Your task to perform on an android device: Go to display settings Image 0: 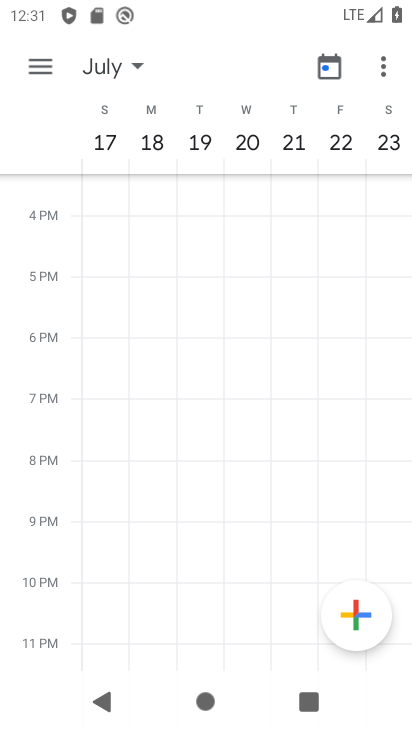
Step 0: press home button
Your task to perform on an android device: Go to display settings Image 1: 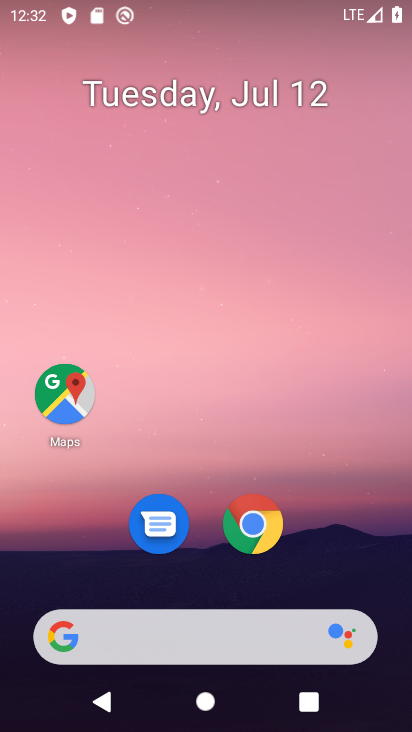
Step 1: drag from (301, 562) to (296, 21)
Your task to perform on an android device: Go to display settings Image 2: 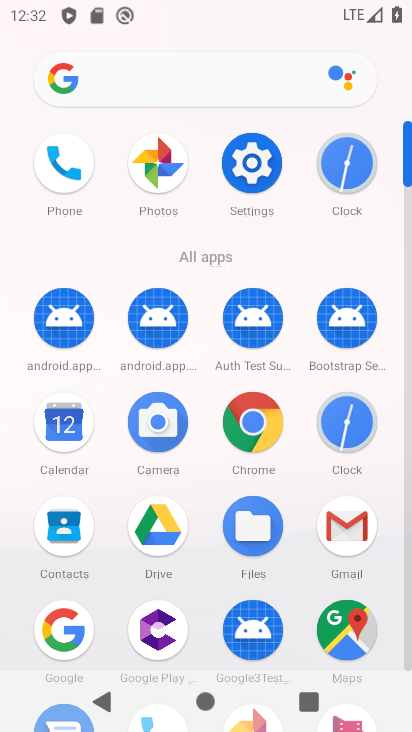
Step 2: click (251, 161)
Your task to perform on an android device: Go to display settings Image 3: 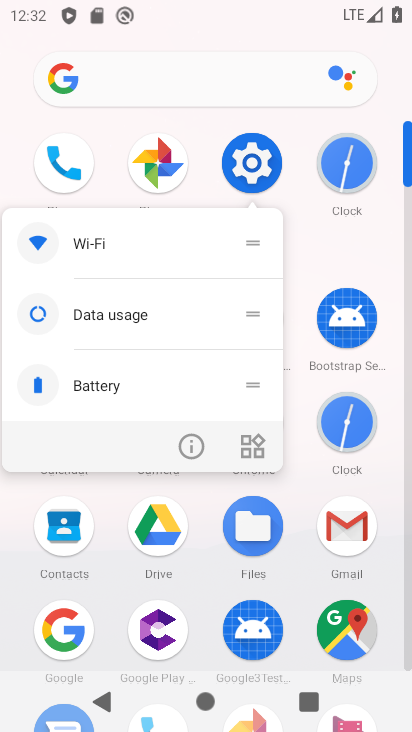
Step 3: click (253, 158)
Your task to perform on an android device: Go to display settings Image 4: 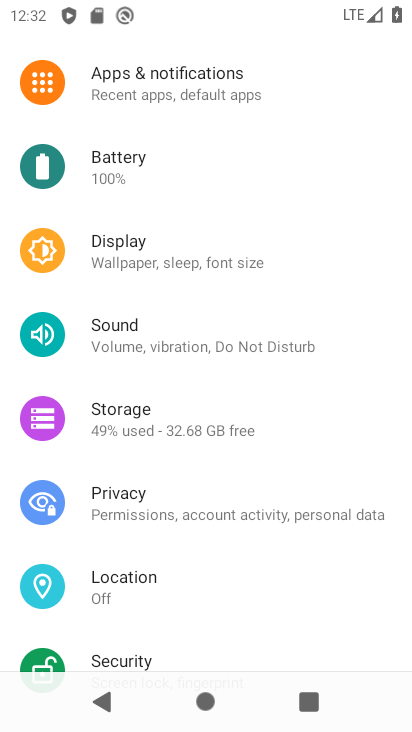
Step 4: click (197, 256)
Your task to perform on an android device: Go to display settings Image 5: 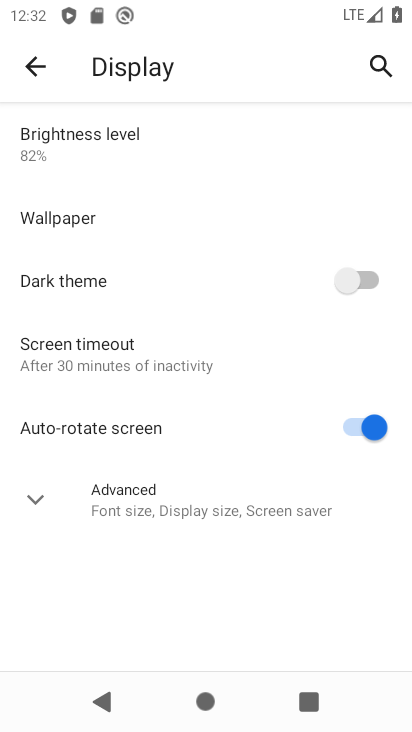
Step 5: click (44, 497)
Your task to perform on an android device: Go to display settings Image 6: 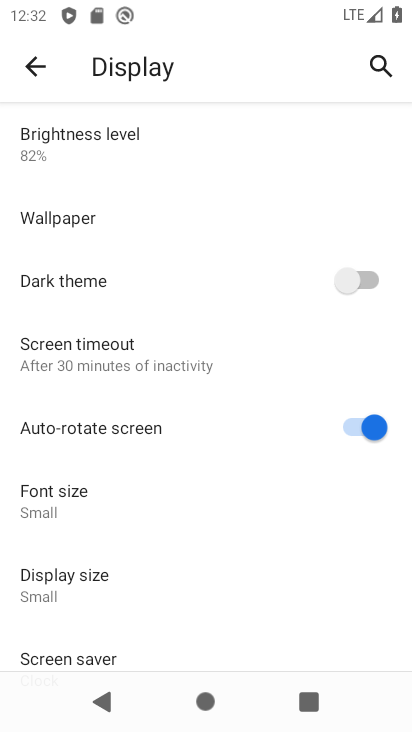
Step 6: task complete